Your task to perform on an android device: add a contact Image 0: 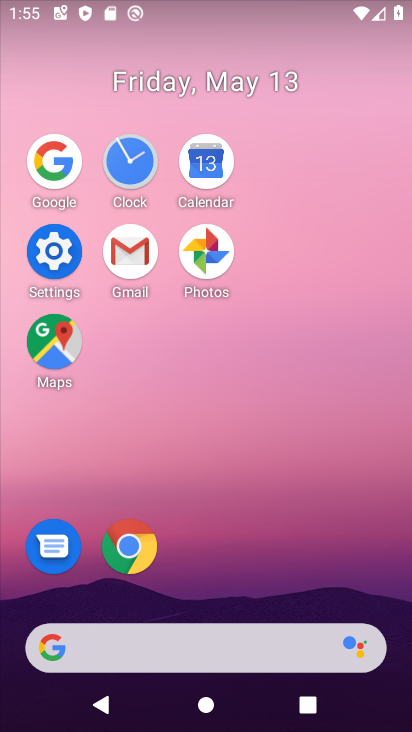
Step 0: drag from (285, 592) to (222, 89)
Your task to perform on an android device: add a contact Image 1: 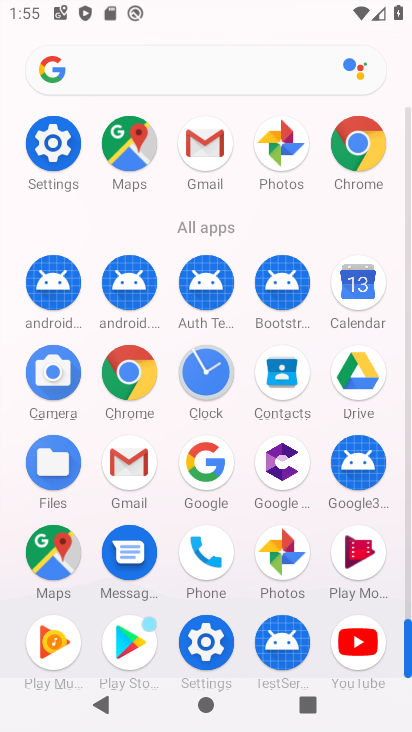
Step 1: drag from (273, 379) to (144, 349)
Your task to perform on an android device: add a contact Image 2: 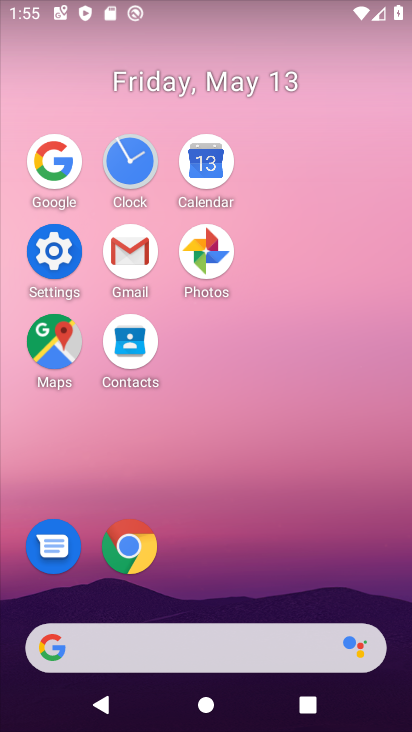
Step 2: click (144, 345)
Your task to perform on an android device: add a contact Image 3: 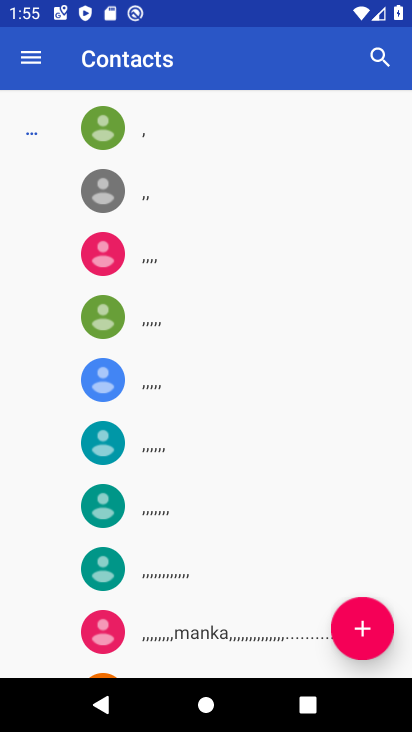
Step 3: click (357, 624)
Your task to perform on an android device: add a contact Image 4: 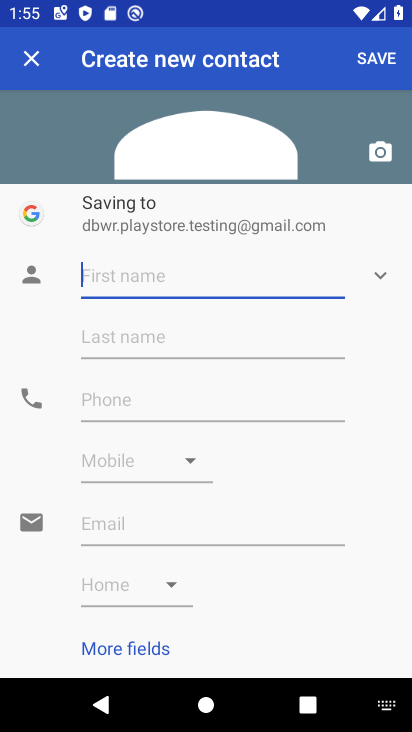
Step 4: type "zsfv"
Your task to perform on an android device: add a contact Image 5: 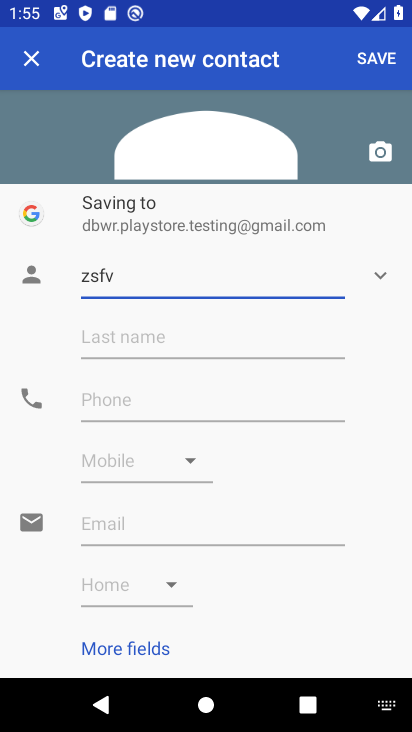
Step 5: click (150, 402)
Your task to perform on an android device: add a contact Image 6: 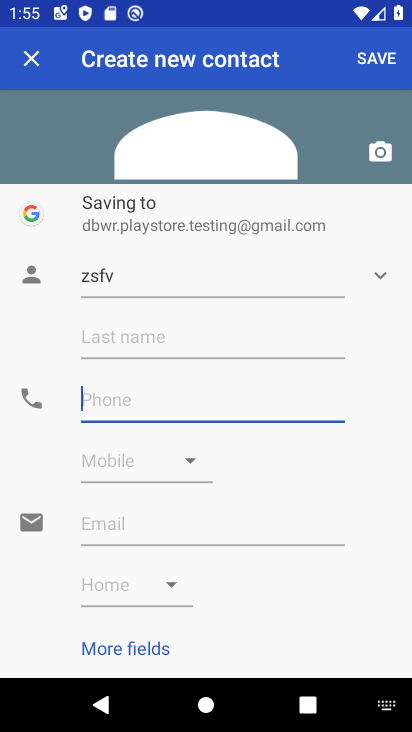
Step 6: type "2234112323"
Your task to perform on an android device: add a contact Image 7: 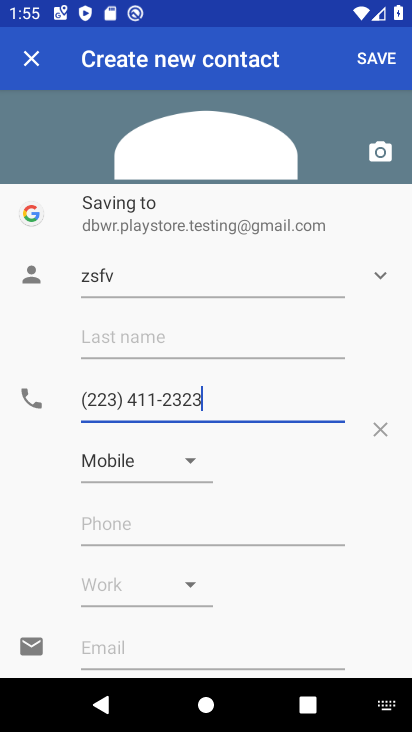
Step 7: click (386, 68)
Your task to perform on an android device: add a contact Image 8: 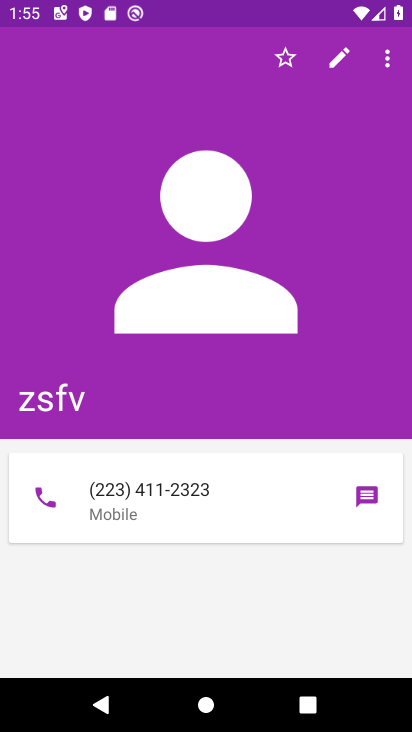
Step 8: task complete